Your task to perform on an android device: Go to Maps Image 0: 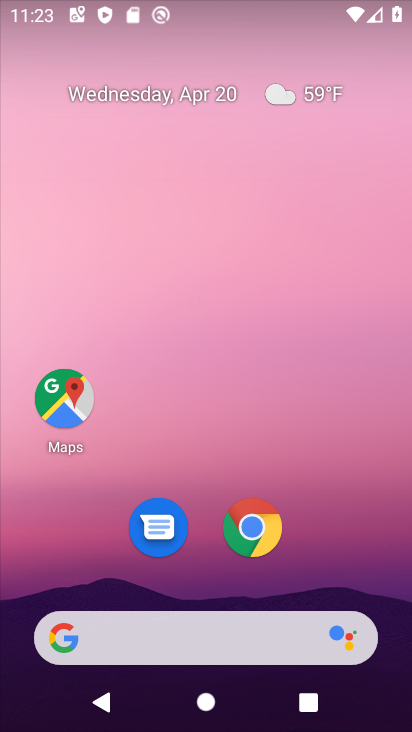
Step 0: drag from (378, 559) to (412, 171)
Your task to perform on an android device: Go to Maps Image 1: 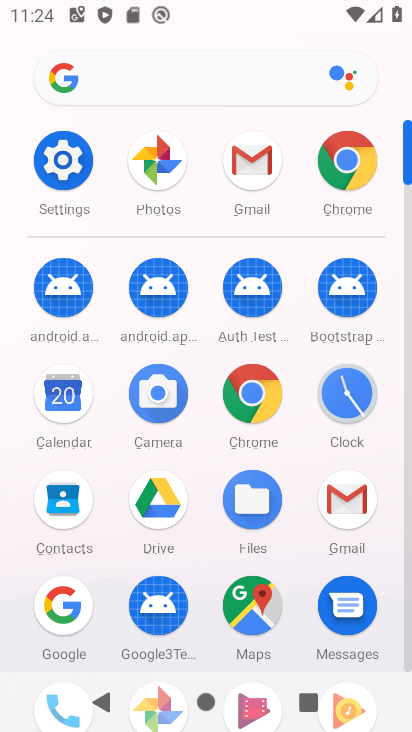
Step 1: click (267, 600)
Your task to perform on an android device: Go to Maps Image 2: 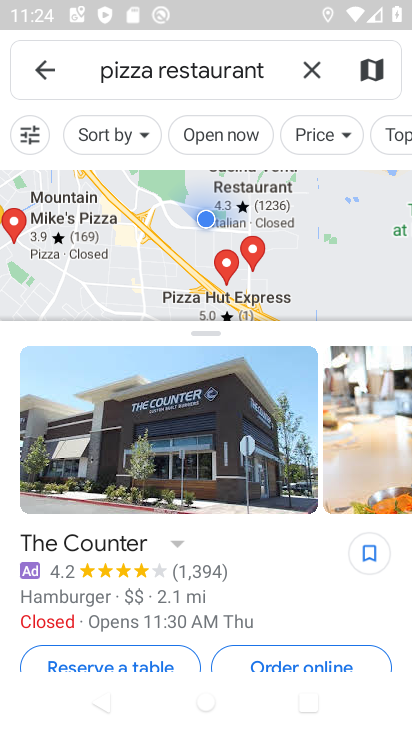
Step 2: task complete